Your task to perform on an android device: move a message to another label in the gmail app Image 0: 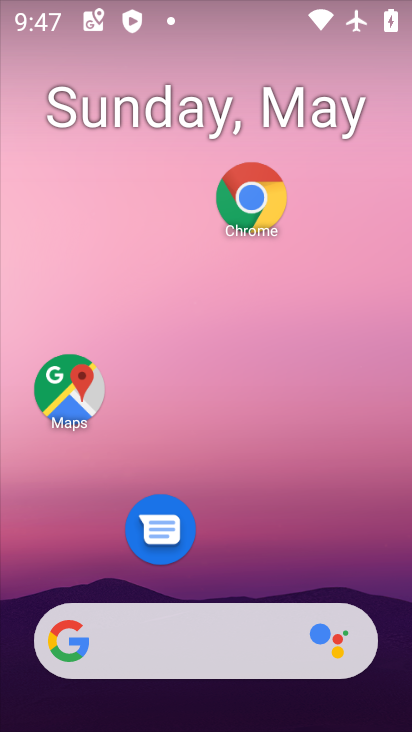
Step 0: drag from (273, 559) to (264, 67)
Your task to perform on an android device: move a message to another label in the gmail app Image 1: 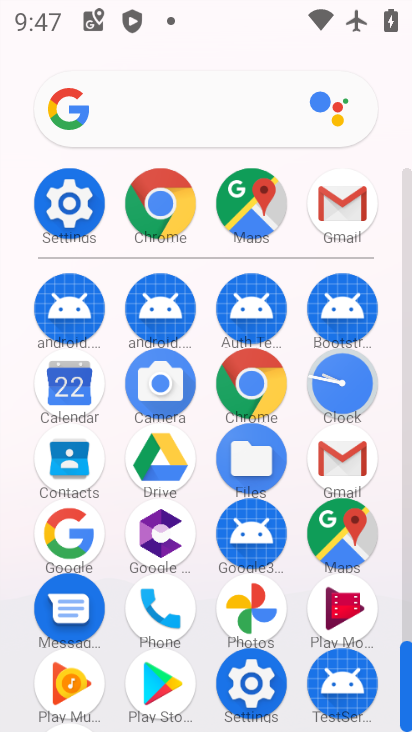
Step 1: click (345, 454)
Your task to perform on an android device: move a message to another label in the gmail app Image 2: 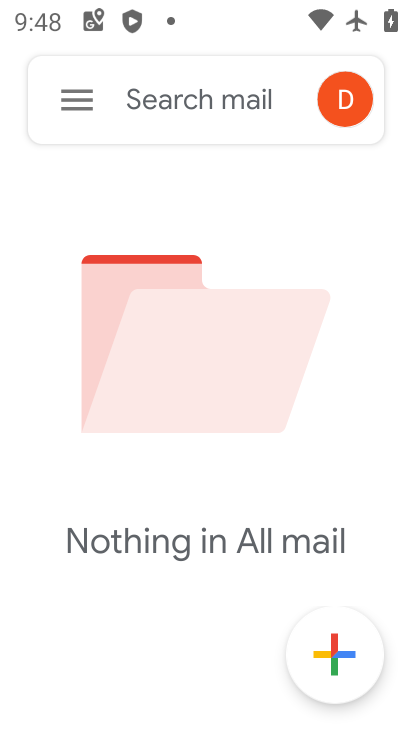
Step 2: drag from (205, 183) to (182, 584)
Your task to perform on an android device: move a message to another label in the gmail app Image 3: 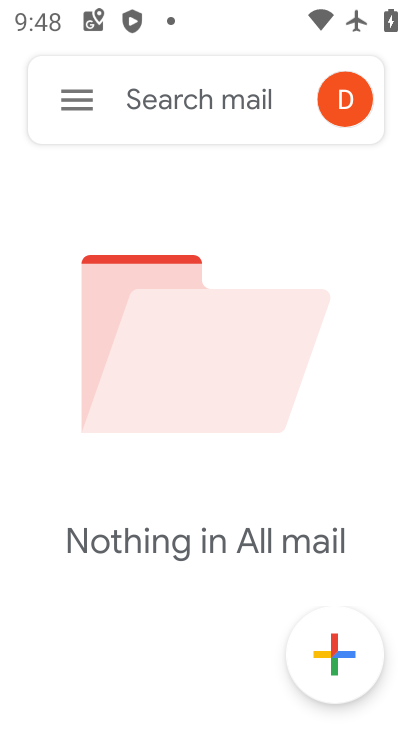
Step 3: click (73, 94)
Your task to perform on an android device: move a message to another label in the gmail app Image 4: 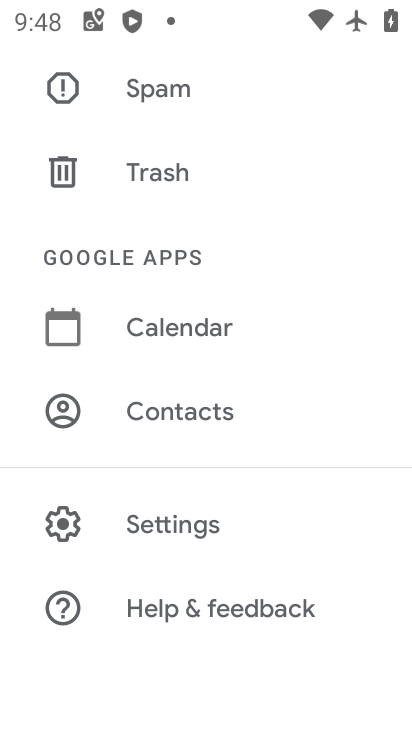
Step 4: task complete